Your task to perform on an android device: make emails show in primary in the gmail app Image 0: 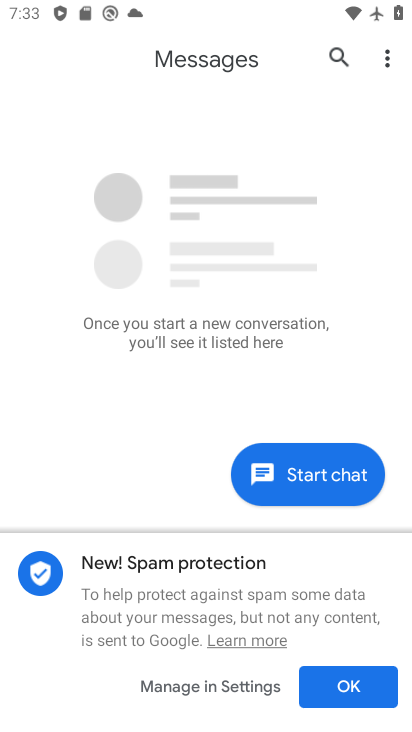
Step 0: press home button
Your task to perform on an android device: make emails show in primary in the gmail app Image 1: 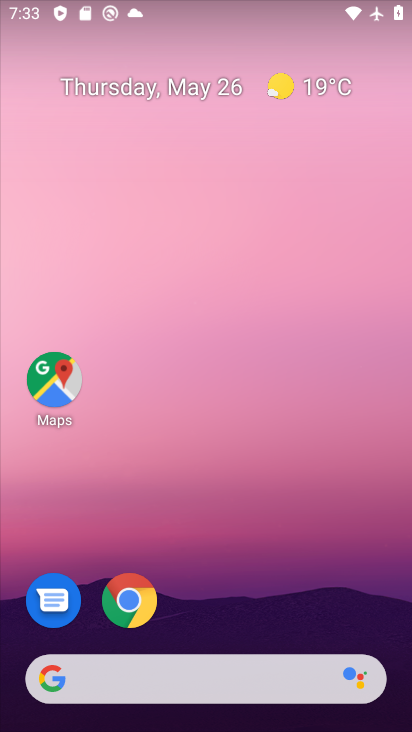
Step 1: drag from (240, 638) to (243, 67)
Your task to perform on an android device: make emails show in primary in the gmail app Image 2: 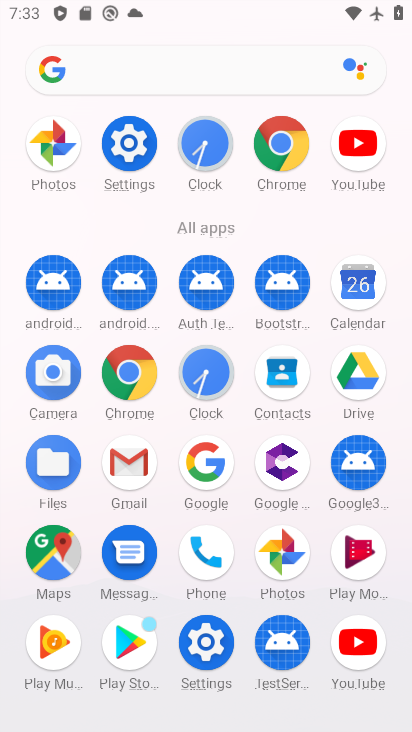
Step 2: click (126, 471)
Your task to perform on an android device: make emails show in primary in the gmail app Image 3: 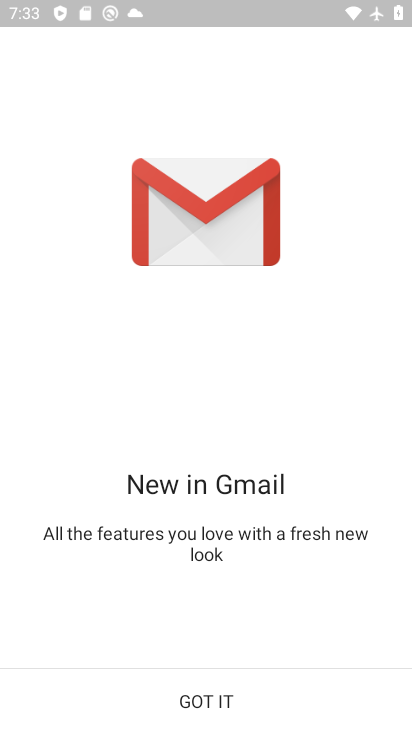
Step 3: click (176, 707)
Your task to perform on an android device: make emails show in primary in the gmail app Image 4: 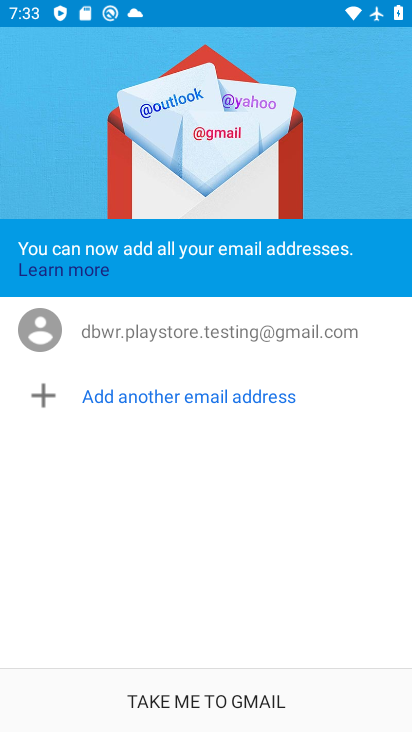
Step 4: click (193, 698)
Your task to perform on an android device: make emails show in primary in the gmail app Image 5: 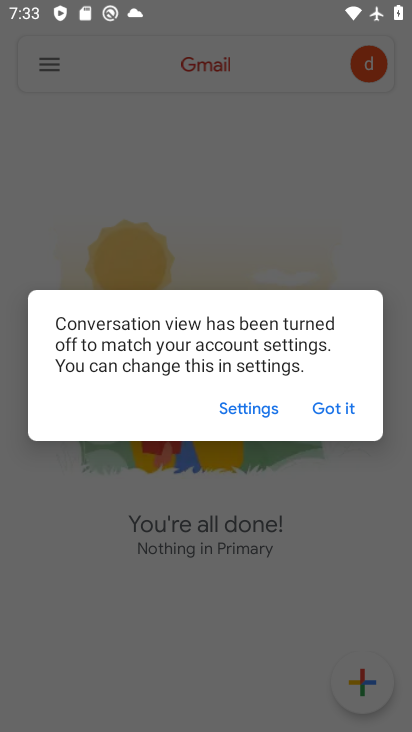
Step 5: click (366, 405)
Your task to perform on an android device: make emails show in primary in the gmail app Image 6: 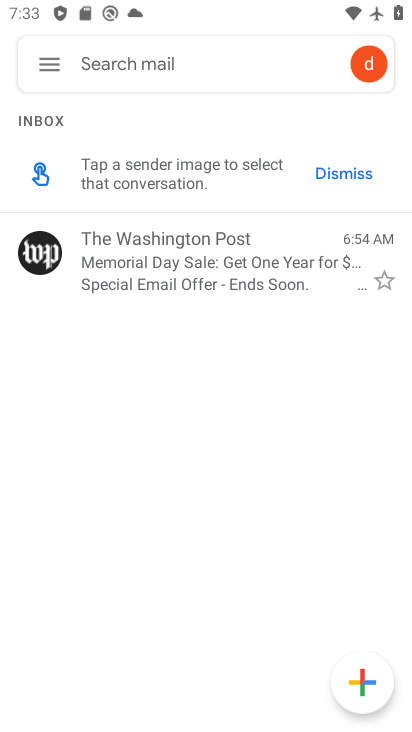
Step 6: click (53, 67)
Your task to perform on an android device: make emails show in primary in the gmail app Image 7: 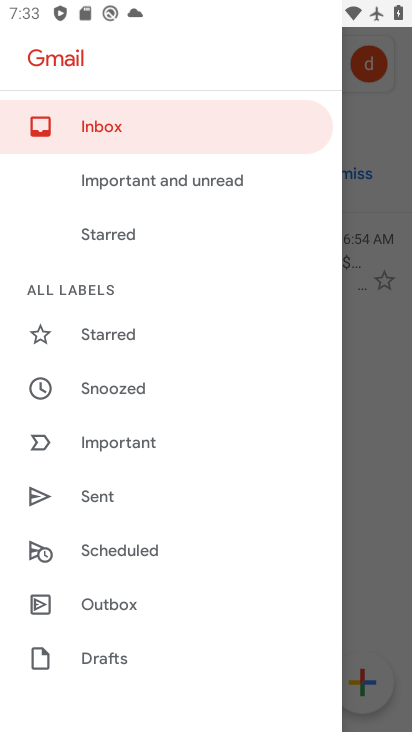
Step 7: drag from (198, 628) to (210, 211)
Your task to perform on an android device: make emails show in primary in the gmail app Image 8: 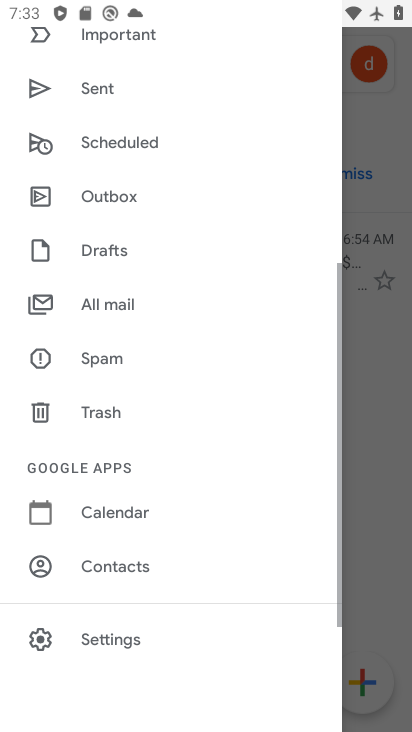
Step 8: drag from (218, 513) to (156, 139)
Your task to perform on an android device: make emails show in primary in the gmail app Image 9: 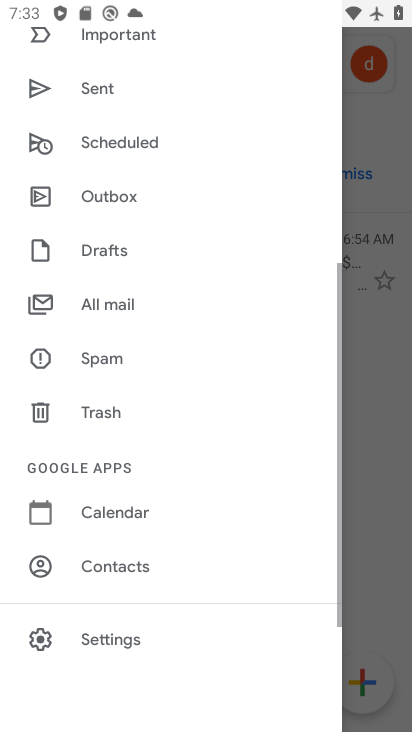
Step 9: click (114, 643)
Your task to perform on an android device: make emails show in primary in the gmail app Image 10: 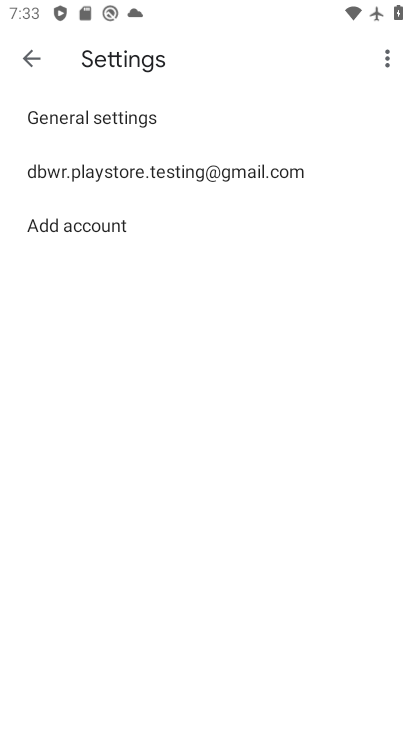
Step 10: click (137, 174)
Your task to perform on an android device: make emails show in primary in the gmail app Image 11: 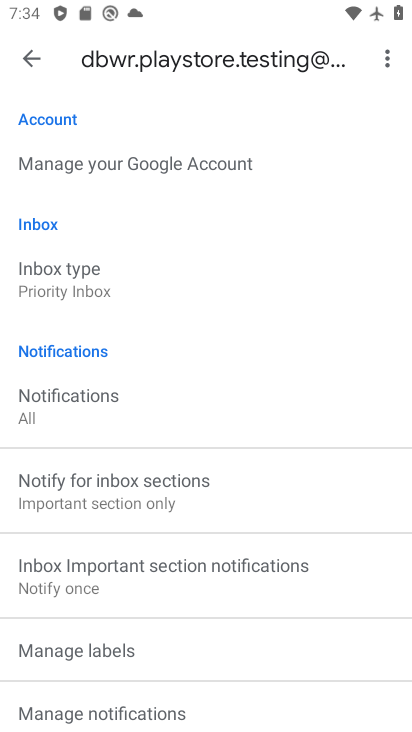
Step 11: task complete